Your task to perform on an android device: turn on sleep mode Image 0: 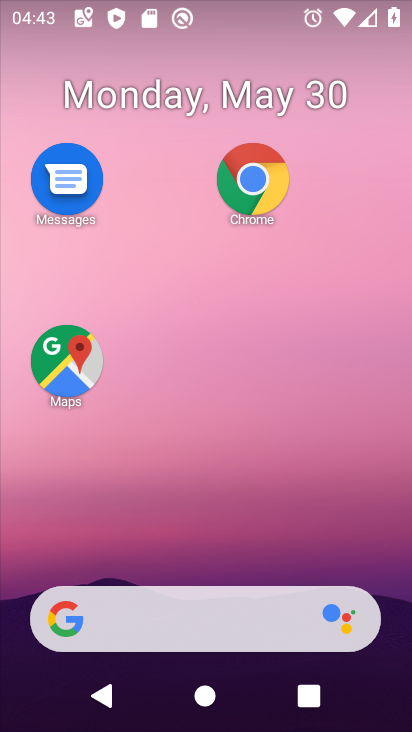
Step 0: drag from (206, 515) to (187, 66)
Your task to perform on an android device: turn on sleep mode Image 1: 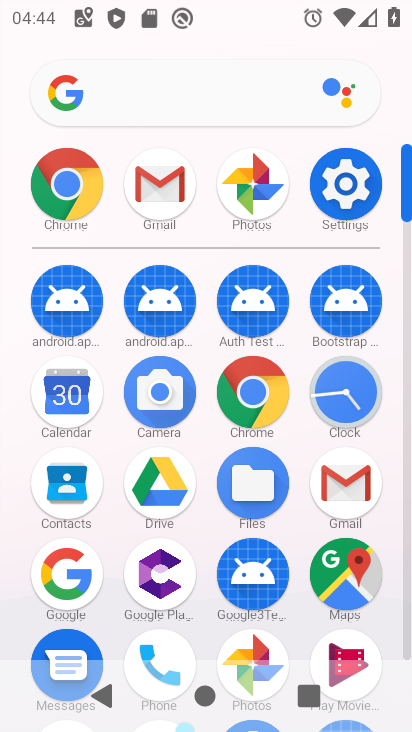
Step 1: click (339, 189)
Your task to perform on an android device: turn on sleep mode Image 2: 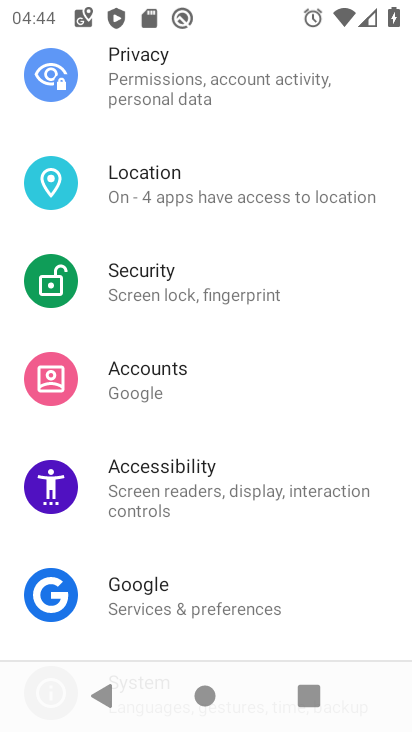
Step 2: task complete